Your task to perform on an android device: Check the news Image 0: 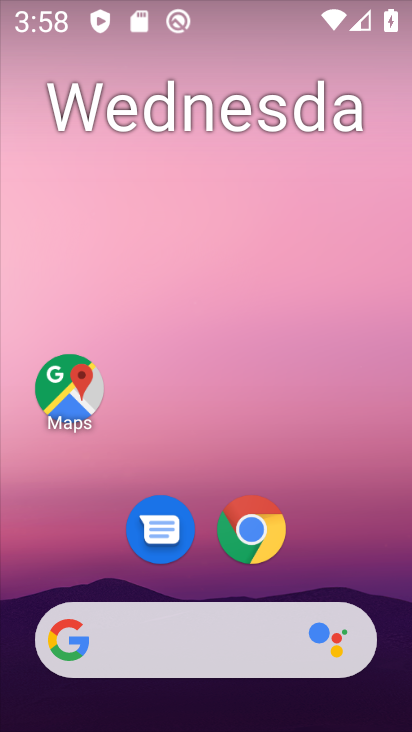
Step 0: drag from (332, 558) to (258, 27)
Your task to perform on an android device: Check the news Image 1: 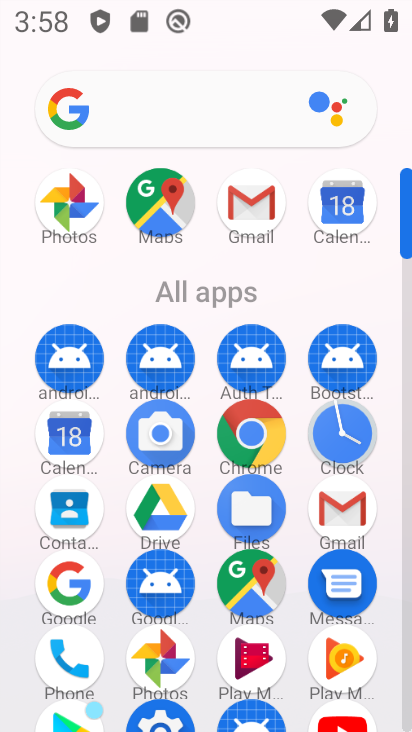
Step 1: drag from (295, 334) to (290, 118)
Your task to perform on an android device: Check the news Image 2: 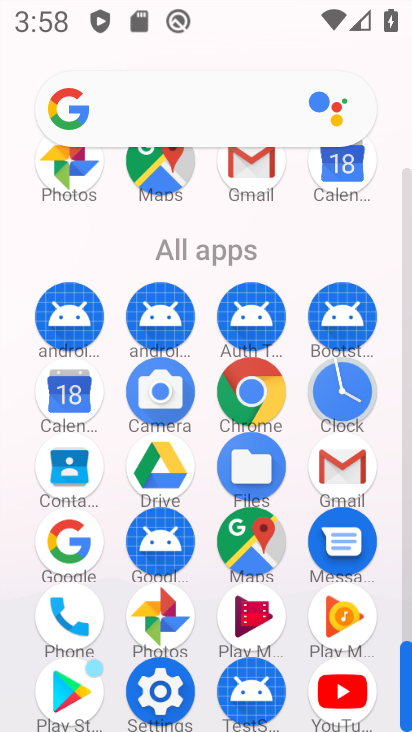
Step 2: drag from (205, 592) to (240, 378)
Your task to perform on an android device: Check the news Image 3: 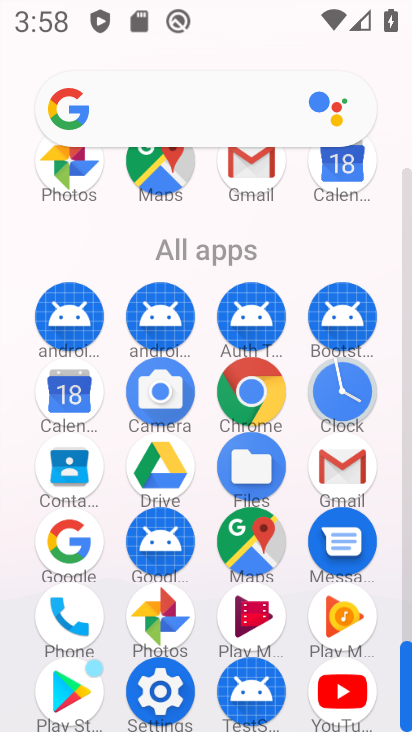
Step 3: click (65, 536)
Your task to perform on an android device: Check the news Image 4: 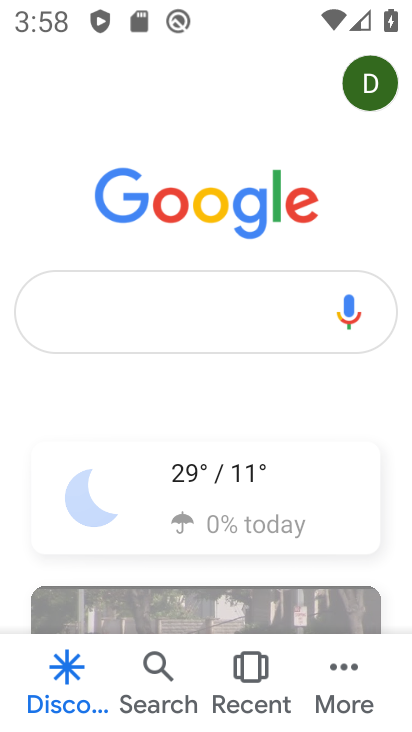
Step 4: click (184, 294)
Your task to perform on an android device: Check the news Image 5: 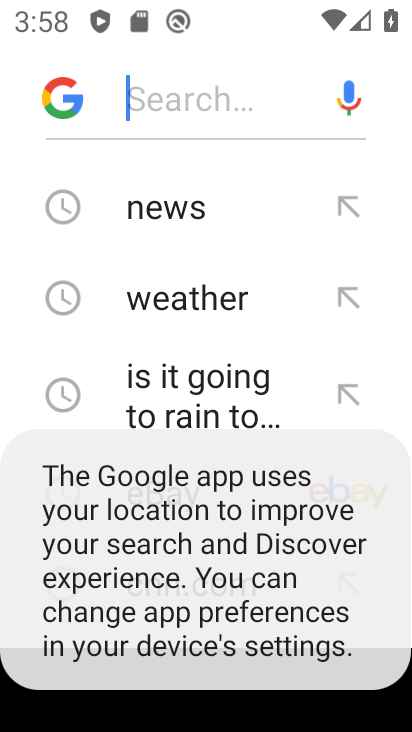
Step 5: type ""
Your task to perform on an android device: Check the news Image 6: 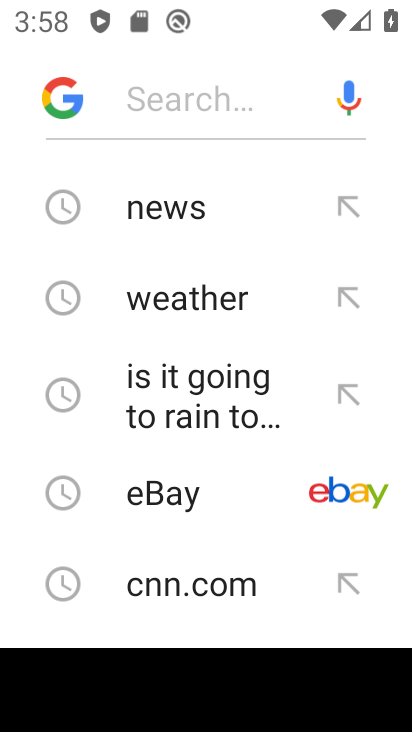
Step 6: type "news"
Your task to perform on an android device: Check the news Image 7: 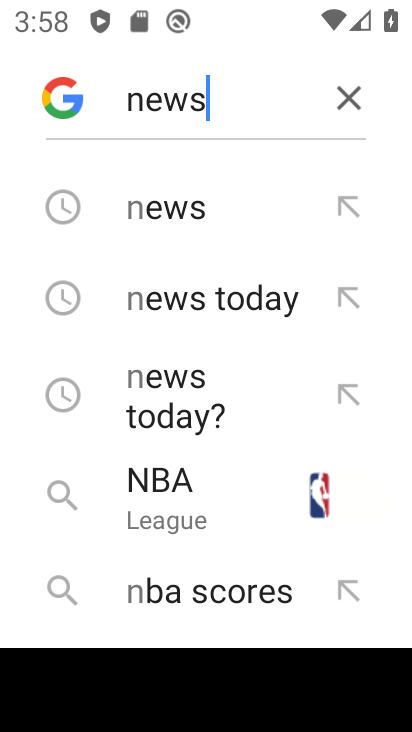
Step 7: type ""
Your task to perform on an android device: Check the news Image 8: 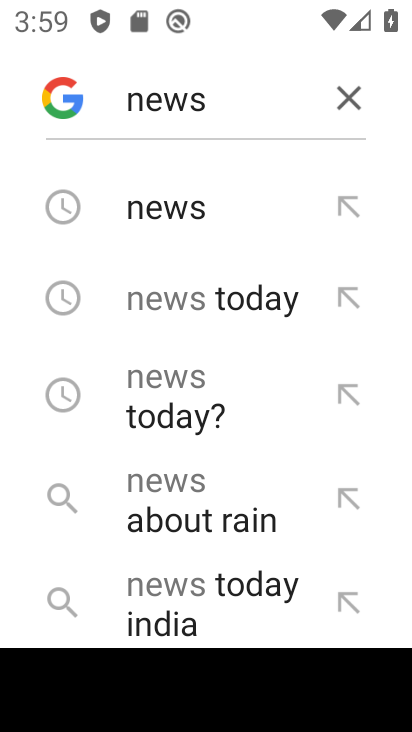
Step 8: click (173, 206)
Your task to perform on an android device: Check the news Image 9: 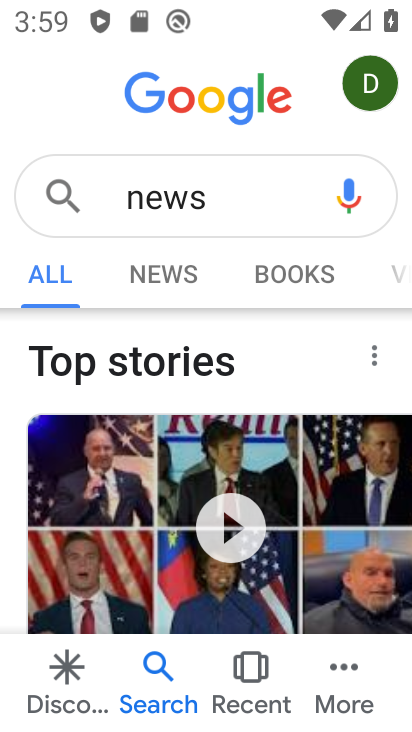
Step 9: drag from (210, 430) to (262, 221)
Your task to perform on an android device: Check the news Image 10: 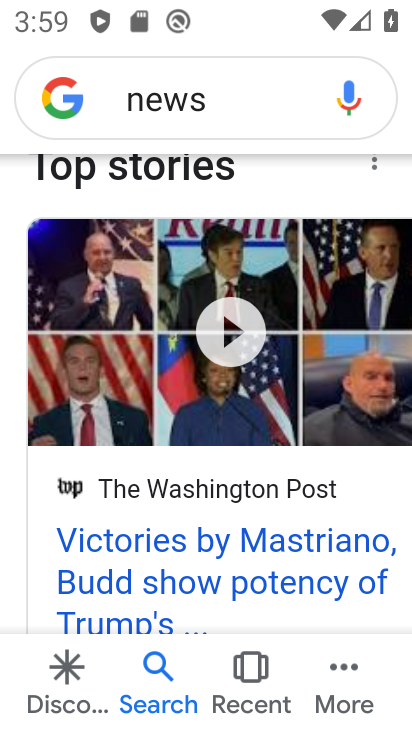
Step 10: drag from (205, 536) to (239, 316)
Your task to perform on an android device: Check the news Image 11: 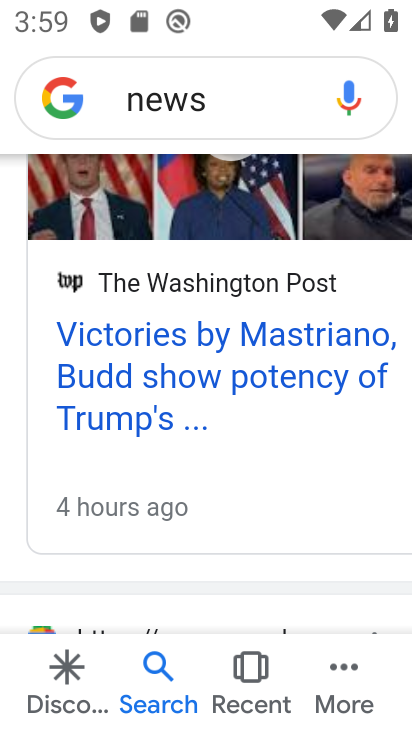
Step 11: click (205, 357)
Your task to perform on an android device: Check the news Image 12: 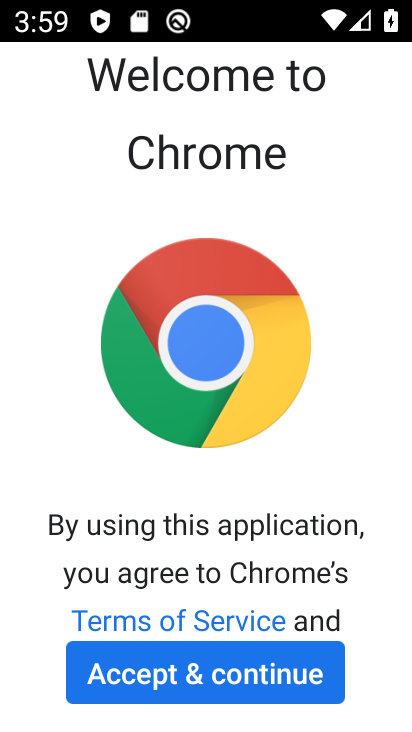
Step 12: click (183, 690)
Your task to perform on an android device: Check the news Image 13: 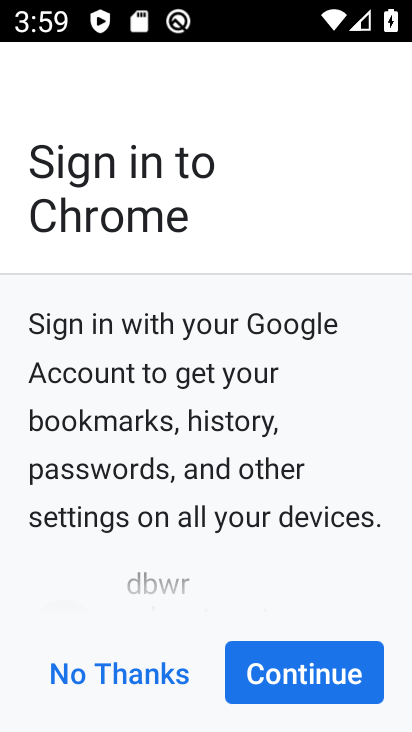
Step 13: click (273, 678)
Your task to perform on an android device: Check the news Image 14: 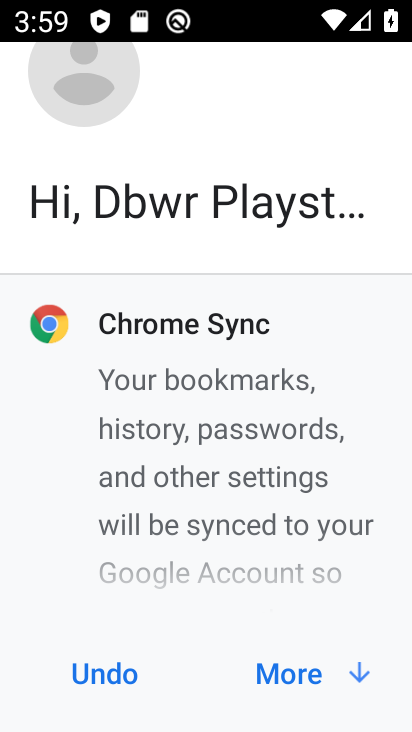
Step 14: click (273, 678)
Your task to perform on an android device: Check the news Image 15: 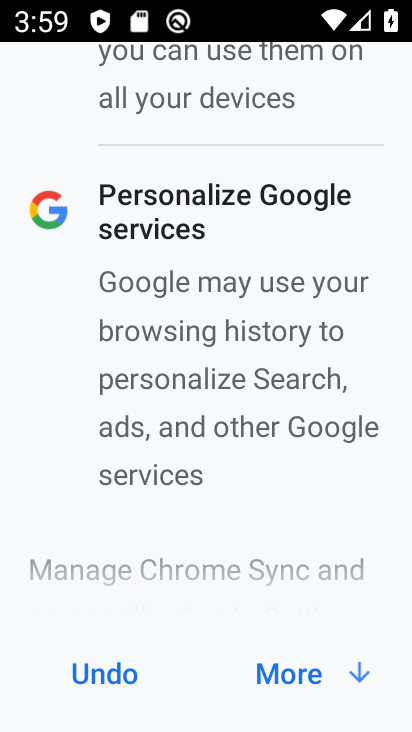
Step 15: click (273, 678)
Your task to perform on an android device: Check the news Image 16: 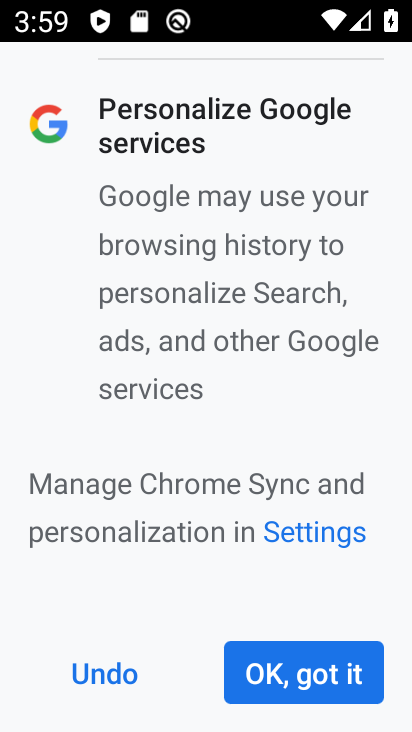
Step 16: click (273, 678)
Your task to perform on an android device: Check the news Image 17: 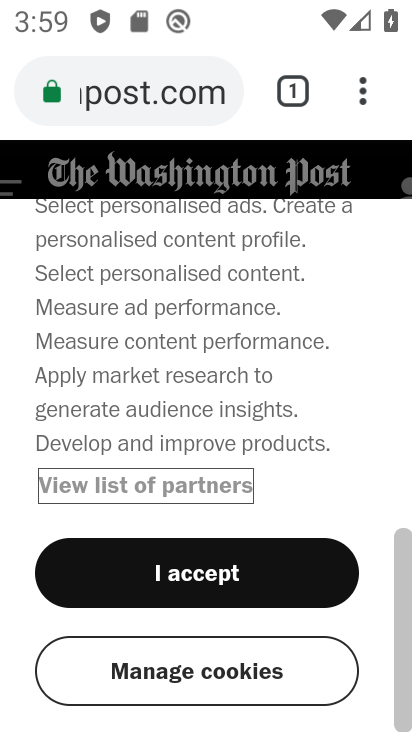
Step 17: task complete